Your task to perform on an android device: check data usage Image 0: 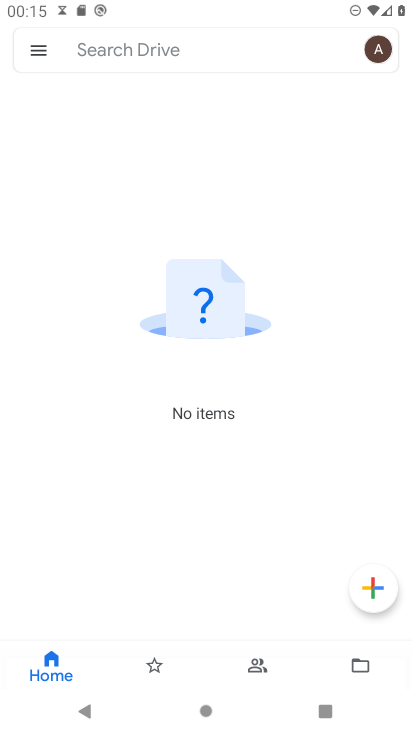
Step 0: press home button
Your task to perform on an android device: check data usage Image 1: 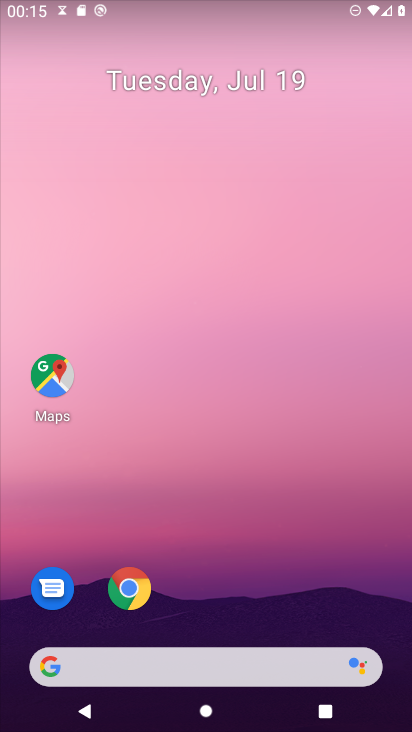
Step 1: drag from (281, 436) to (323, 131)
Your task to perform on an android device: check data usage Image 2: 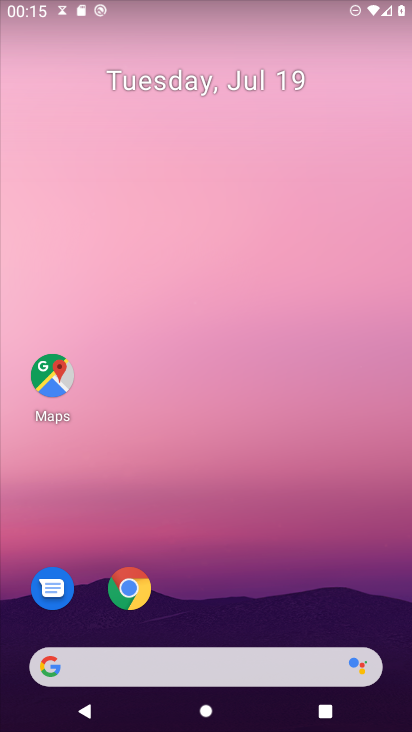
Step 2: drag from (232, 523) to (282, 59)
Your task to perform on an android device: check data usage Image 3: 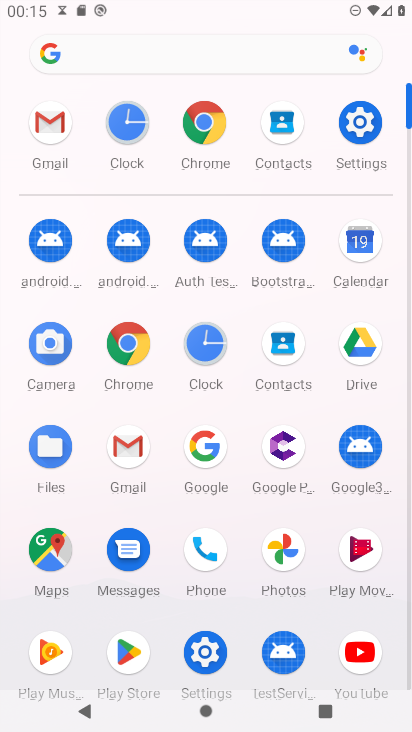
Step 3: click (365, 122)
Your task to perform on an android device: check data usage Image 4: 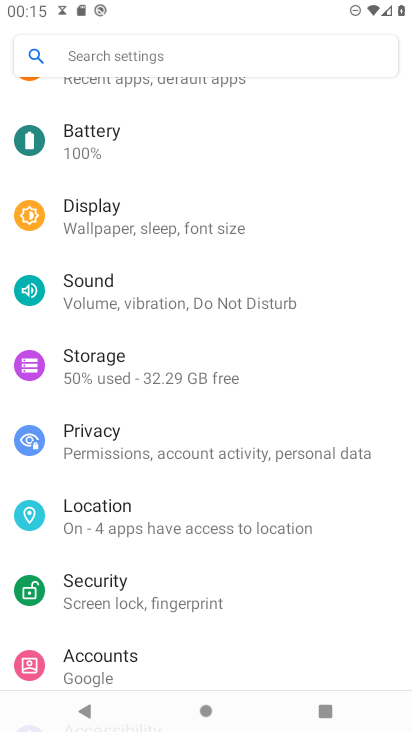
Step 4: drag from (212, 102) to (182, 560)
Your task to perform on an android device: check data usage Image 5: 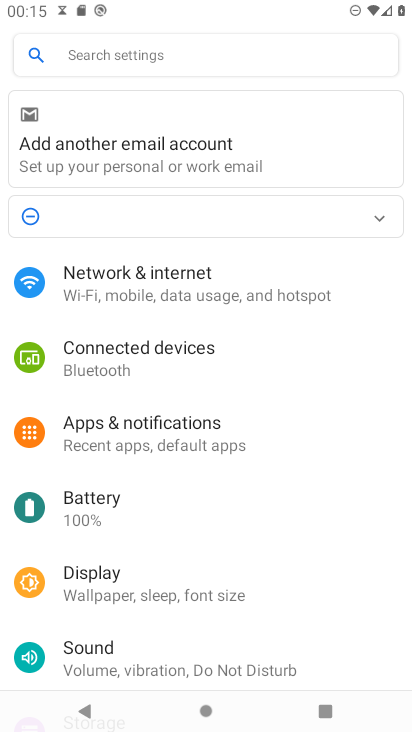
Step 5: click (149, 281)
Your task to perform on an android device: check data usage Image 6: 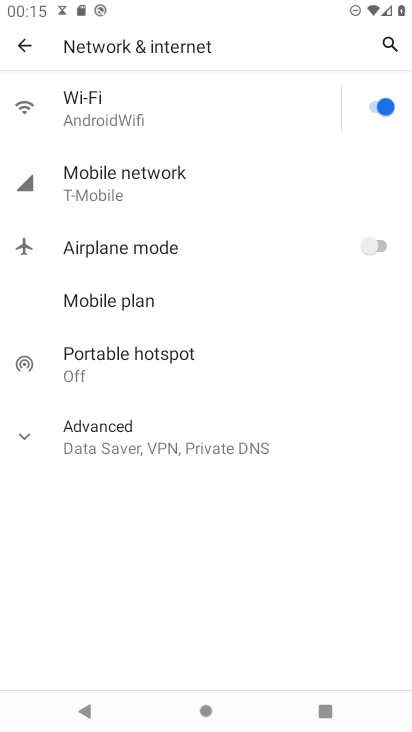
Step 6: click (147, 186)
Your task to perform on an android device: check data usage Image 7: 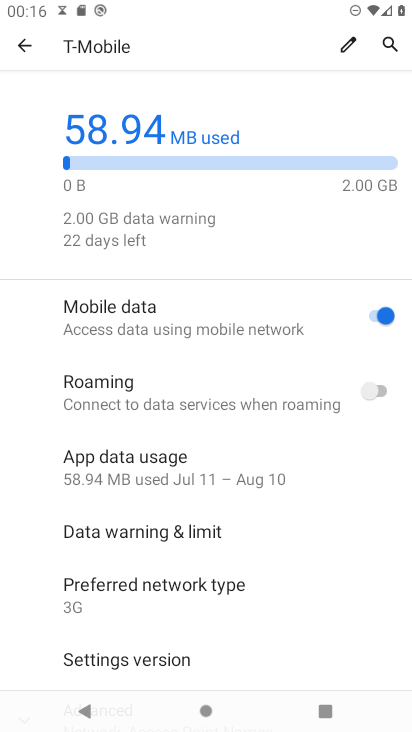
Step 7: task complete